Your task to perform on an android device: show emergency info Image 0: 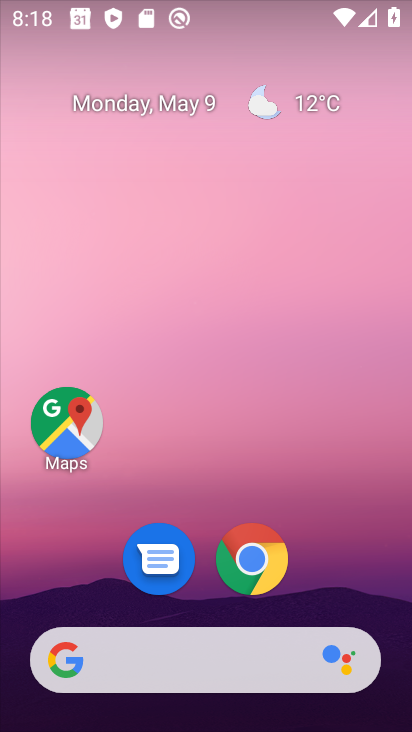
Step 0: drag from (274, 459) to (304, 68)
Your task to perform on an android device: show emergency info Image 1: 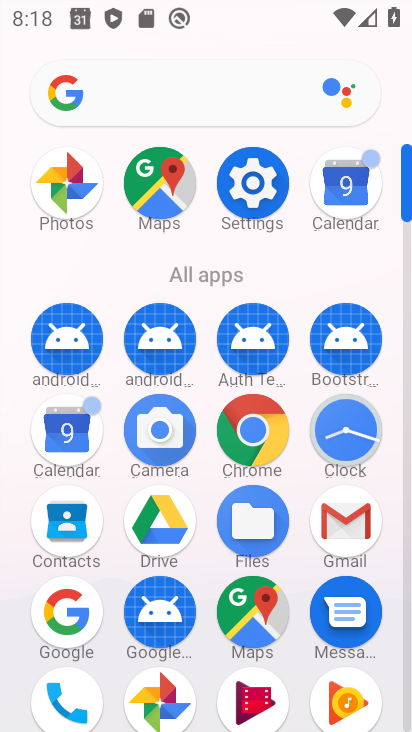
Step 1: click (274, 189)
Your task to perform on an android device: show emergency info Image 2: 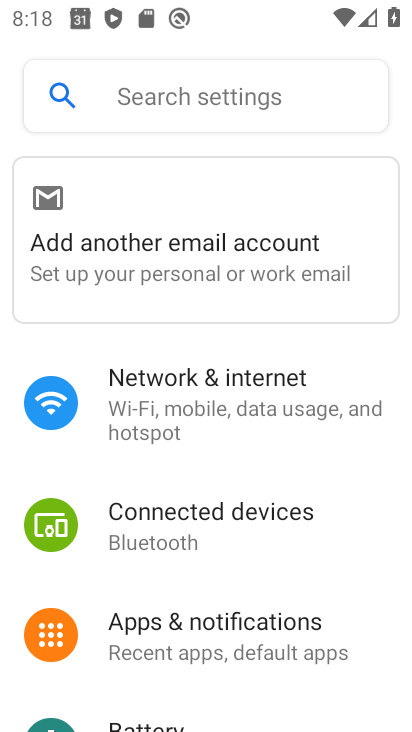
Step 2: drag from (189, 576) to (283, 56)
Your task to perform on an android device: show emergency info Image 3: 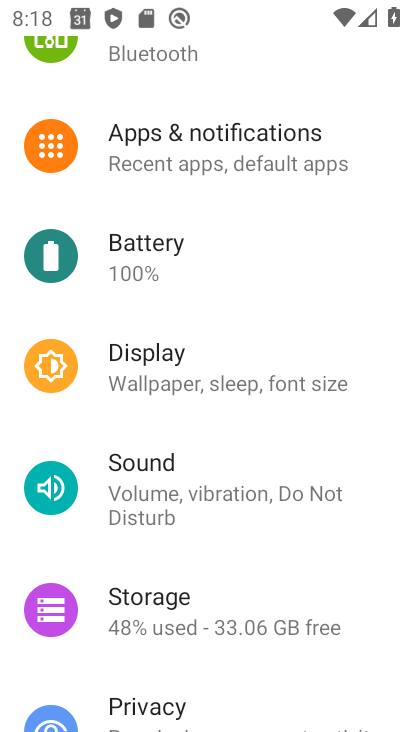
Step 3: drag from (185, 640) to (301, 30)
Your task to perform on an android device: show emergency info Image 4: 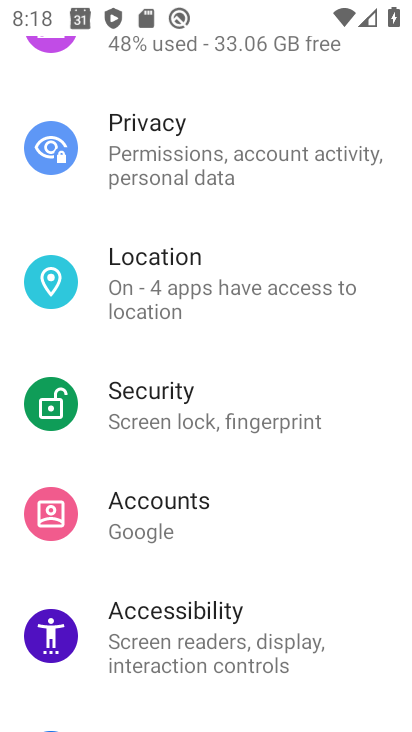
Step 4: drag from (207, 643) to (300, 94)
Your task to perform on an android device: show emergency info Image 5: 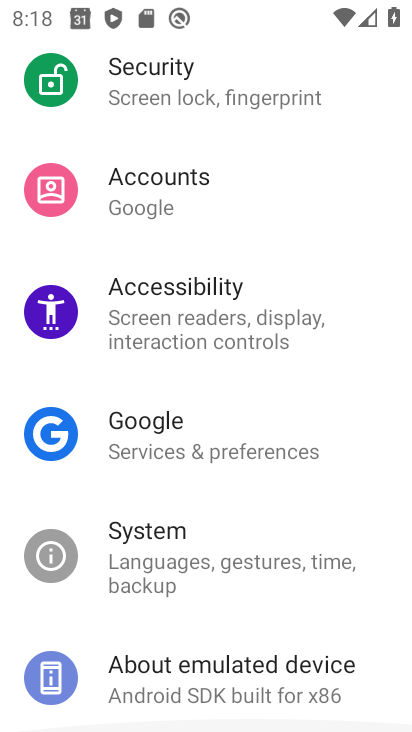
Step 5: click (237, 666)
Your task to perform on an android device: show emergency info Image 6: 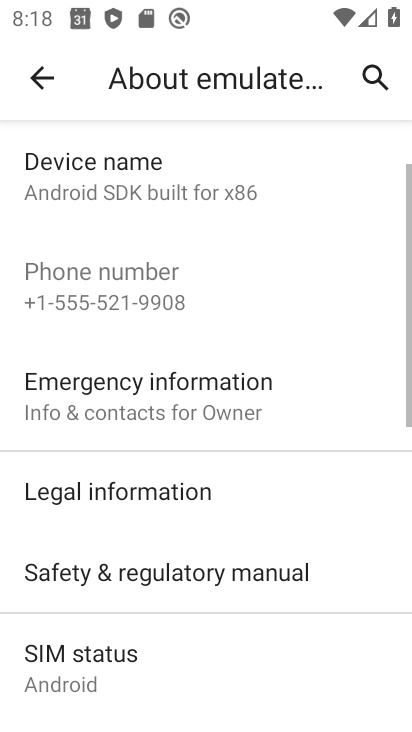
Step 6: click (117, 404)
Your task to perform on an android device: show emergency info Image 7: 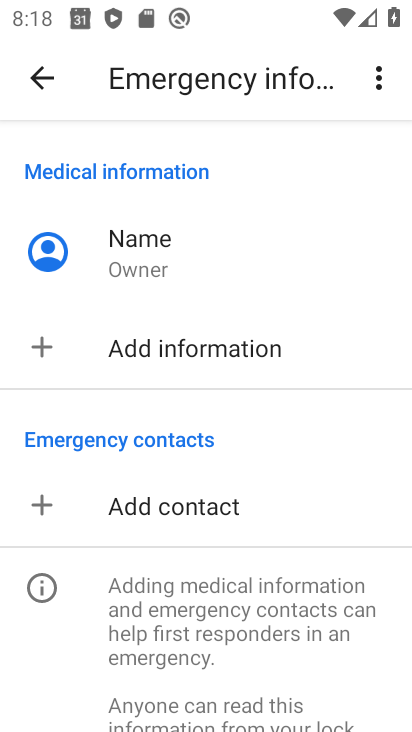
Step 7: task complete